Your task to perform on an android device: Go to notification settings Image 0: 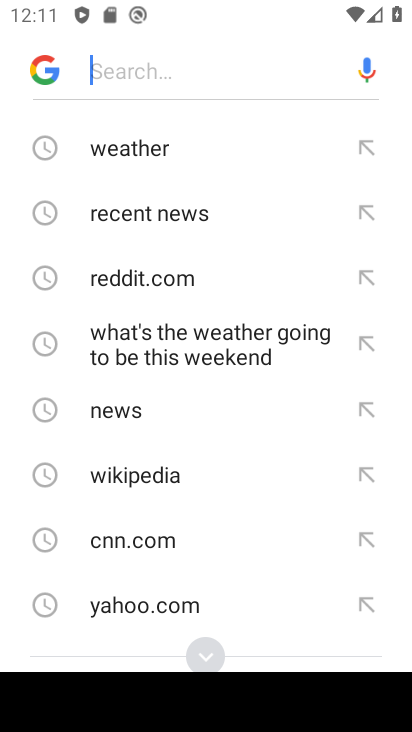
Step 0: press home button
Your task to perform on an android device: Go to notification settings Image 1: 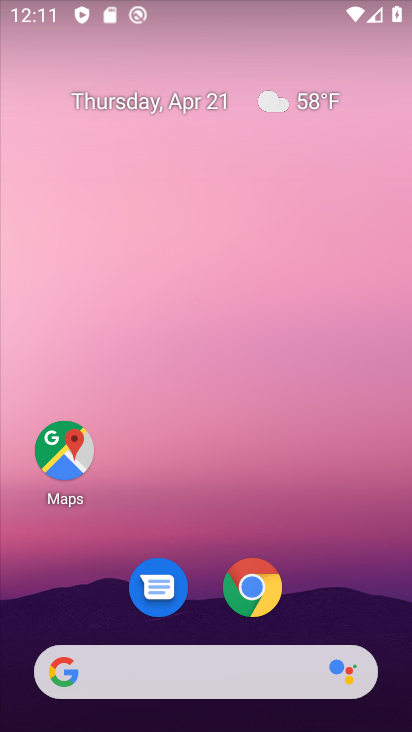
Step 1: drag from (193, 582) to (239, 10)
Your task to perform on an android device: Go to notification settings Image 2: 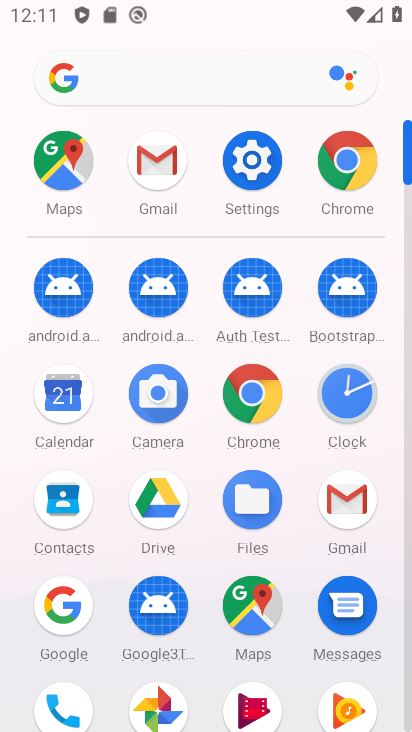
Step 2: click (247, 182)
Your task to perform on an android device: Go to notification settings Image 3: 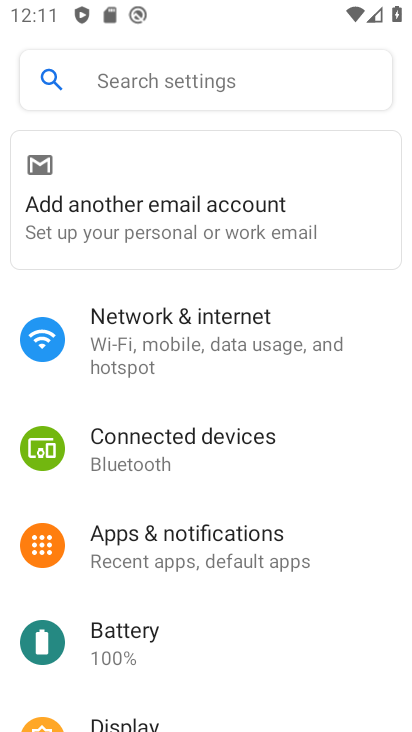
Step 3: click (149, 547)
Your task to perform on an android device: Go to notification settings Image 4: 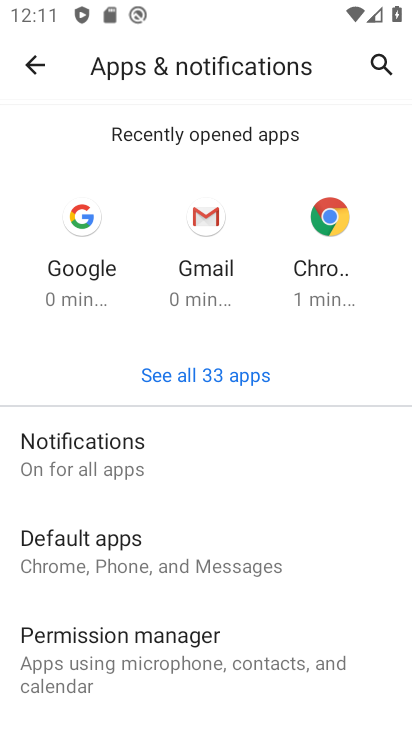
Step 4: click (130, 485)
Your task to perform on an android device: Go to notification settings Image 5: 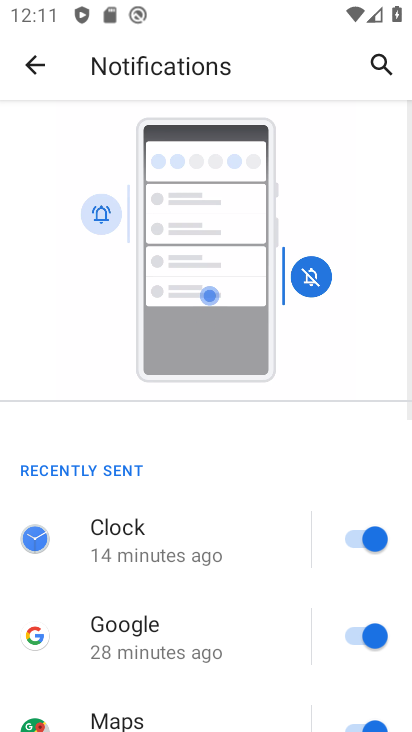
Step 5: task complete